Your task to perform on an android device: Check the settings for the Amazon Shopping app Image 0: 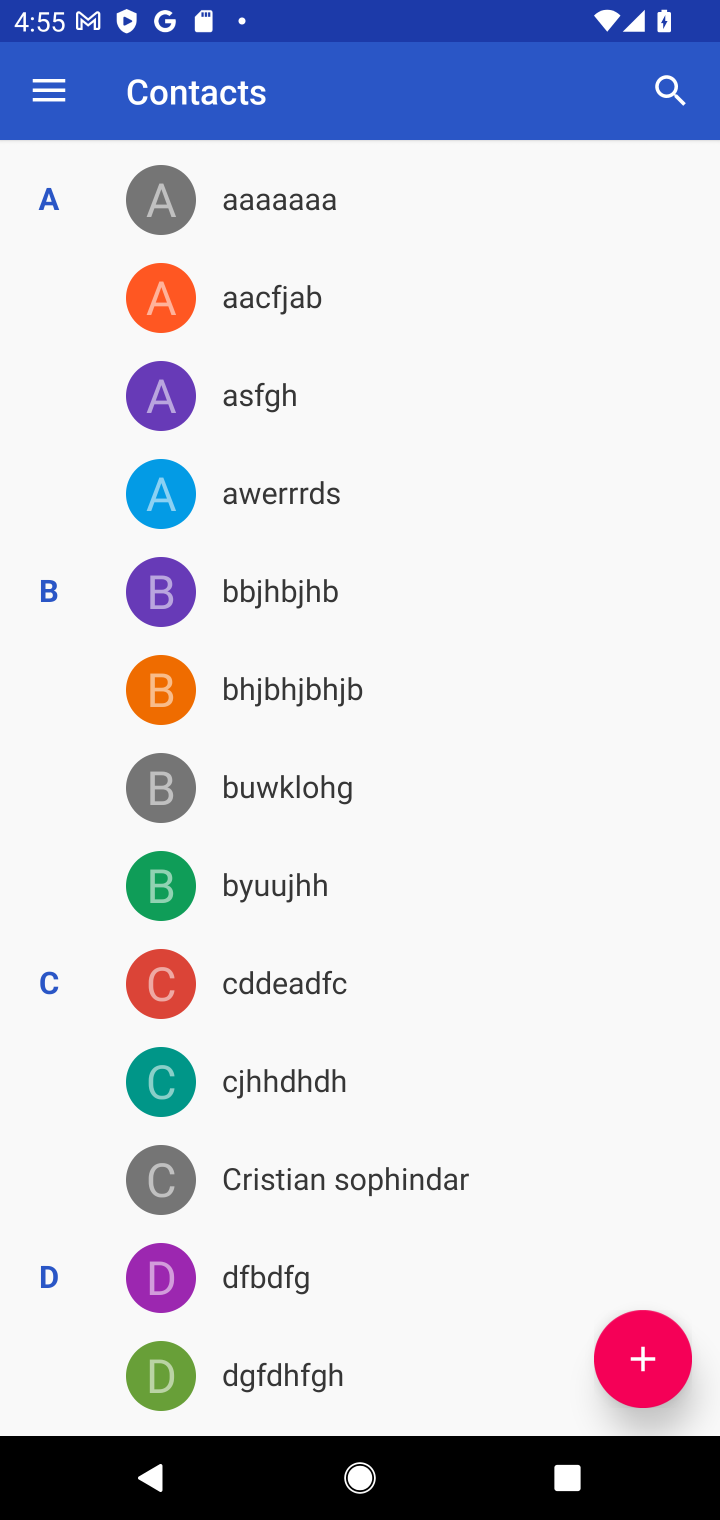
Step 0: press home button
Your task to perform on an android device: Check the settings for the Amazon Shopping app Image 1: 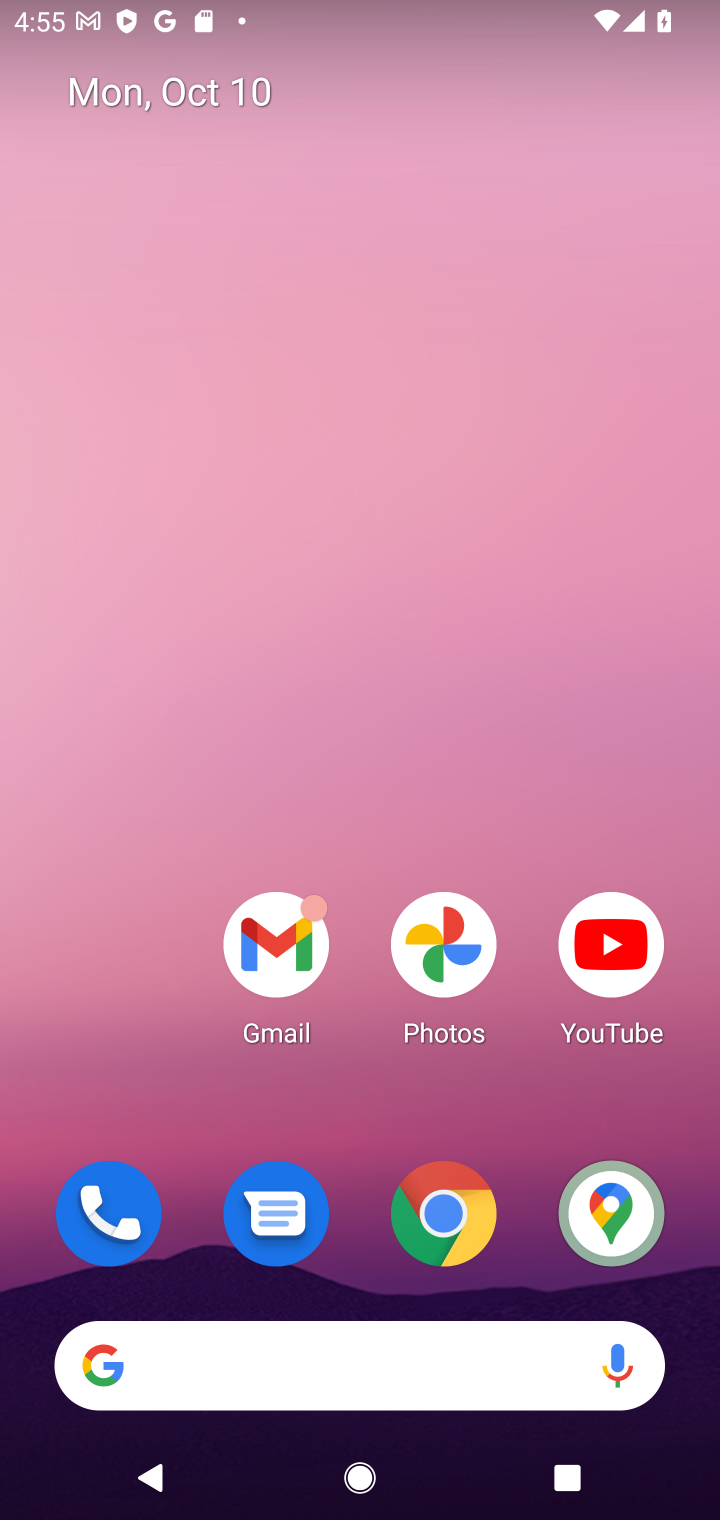
Step 1: task complete